Your task to perform on an android device: Go to CNN.com Image 0: 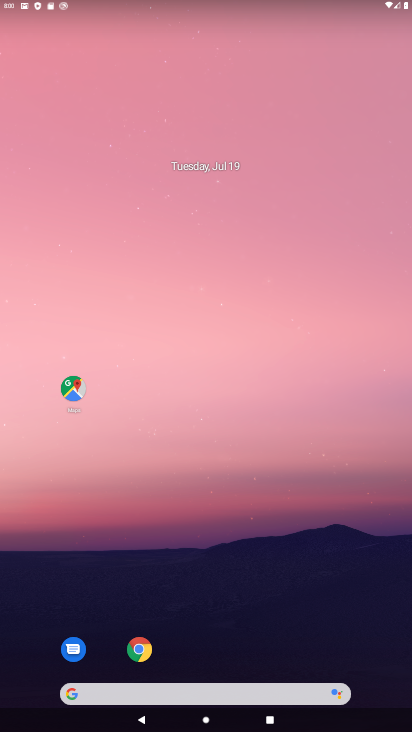
Step 0: drag from (267, 673) to (218, 267)
Your task to perform on an android device: Go to CNN.com Image 1: 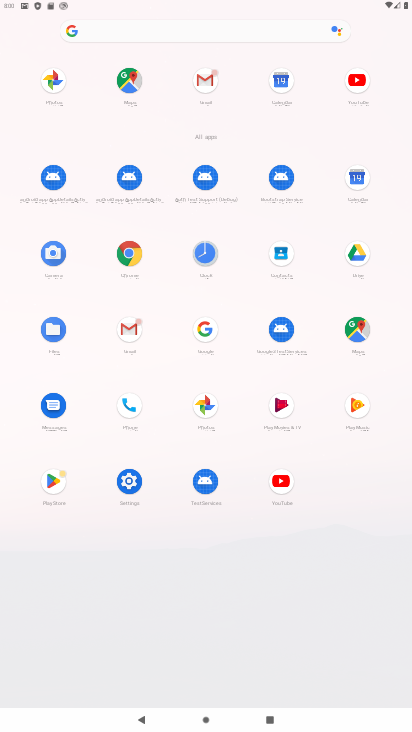
Step 1: click (135, 246)
Your task to perform on an android device: Go to CNN.com Image 2: 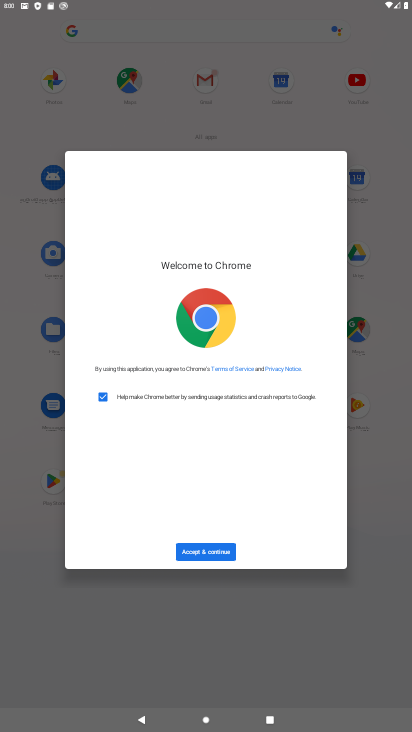
Step 2: click (207, 549)
Your task to perform on an android device: Go to CNN.com Image 3: 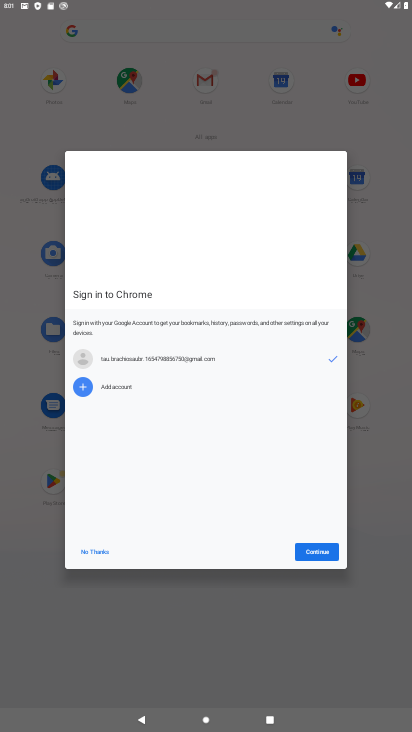
Step 3: click (328, 553)
Your task to perform on an android device: Go to CNN.com Image 4: 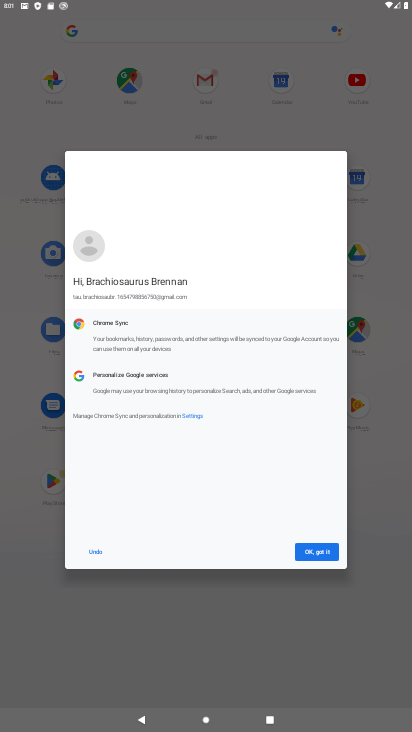
Step 4: click (330, 555)
Your task to perform on an android device: Go to CNN.com Image 5: 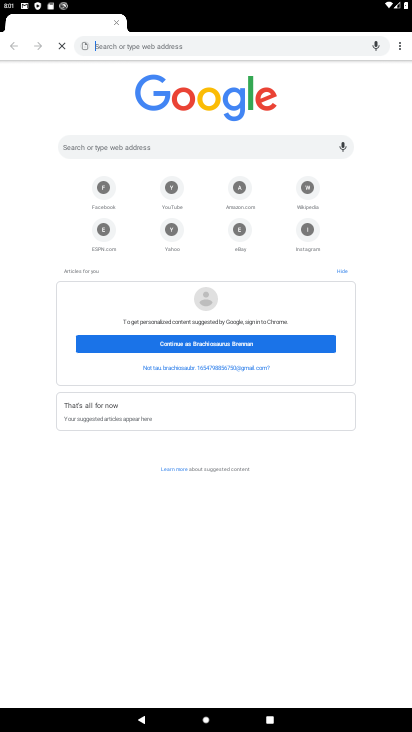
Step 5: click (210, 43)
Your task to perform on an android device: Go to CNN.com Image 6: 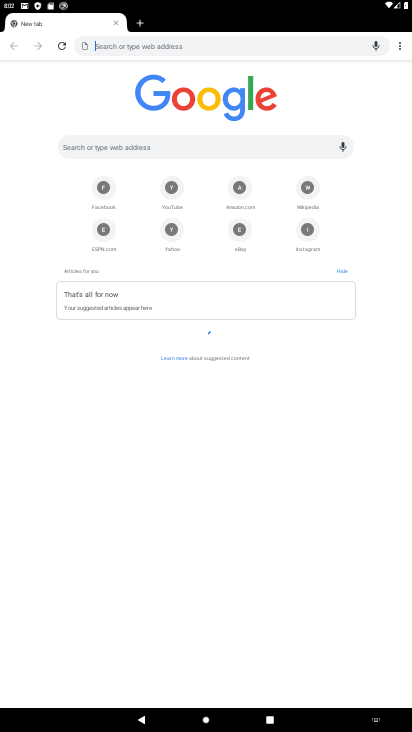
Step 6: click (210, 43)
Your task to perform on an android device: Go to CNN.com Image 7: 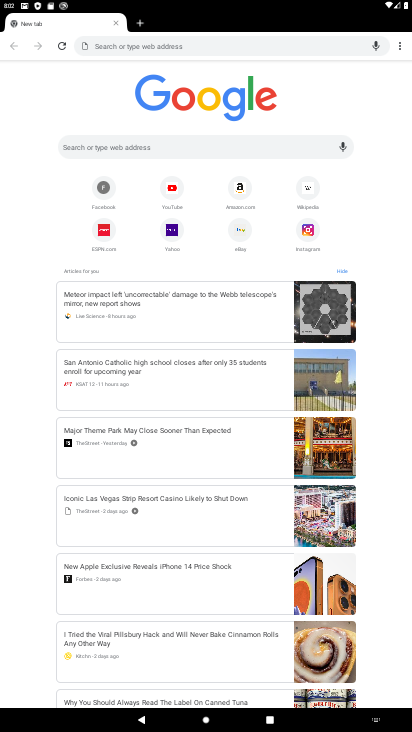
Step 7: type "cnn.com"
Your task to perform on an android device: Go to CNN.com Image 8: 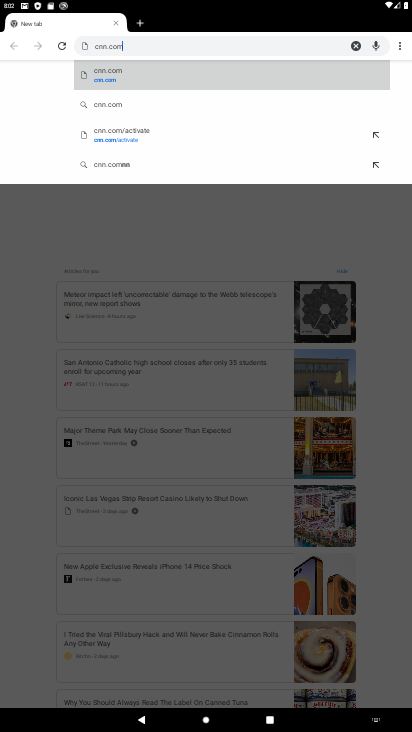
Step 8: click (211, 81)
Your task to perform on an android device: Go to CNN.com Image 9: 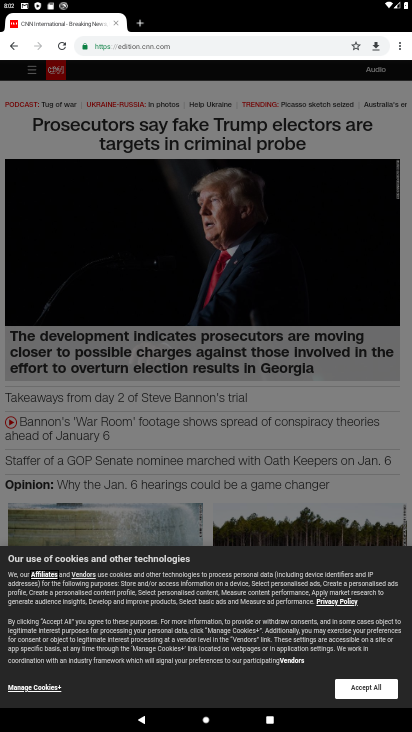
Step 9: task complete